Your task to perform on an android device: toggle data saver in the chrome app Image 0: 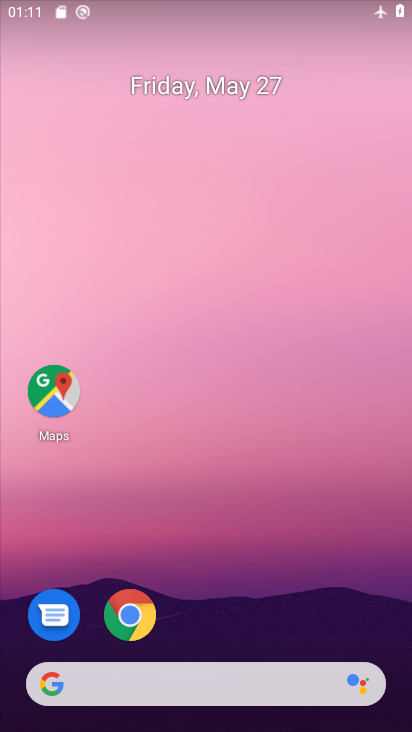
Step 0: drag from (354, 637) to (378, 252)
Your task to perform on an android device: toggle data saver in the chrome app Image 1: 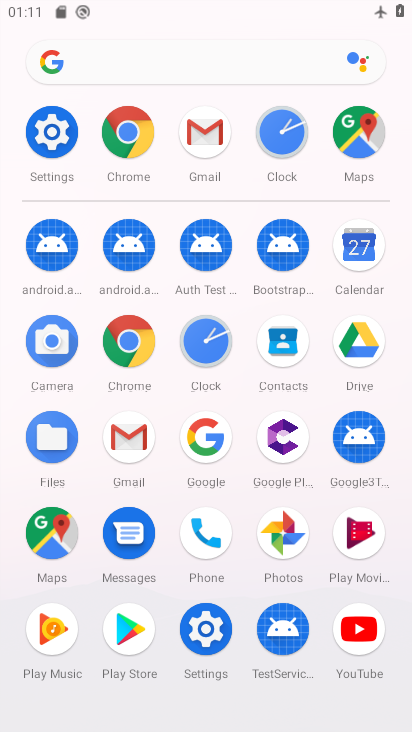
Step 1: click (142, 354)
Your task to perform on an android device: toggle data saver in the chrome app Image 2: 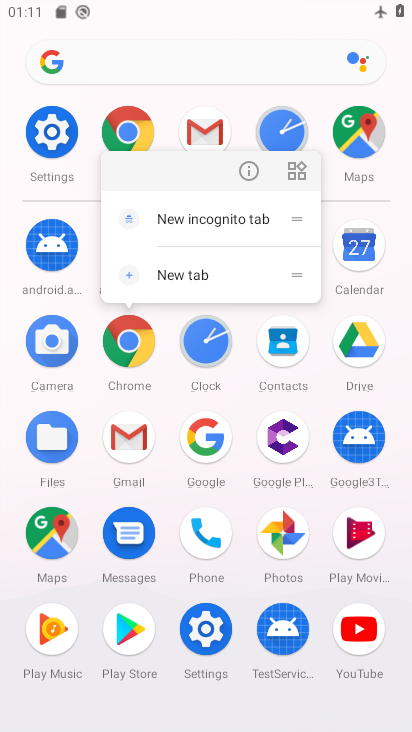
Step 2: click (145, 354)
Your task to perform on an android device: toggle data saver in the chrome app Image 3: 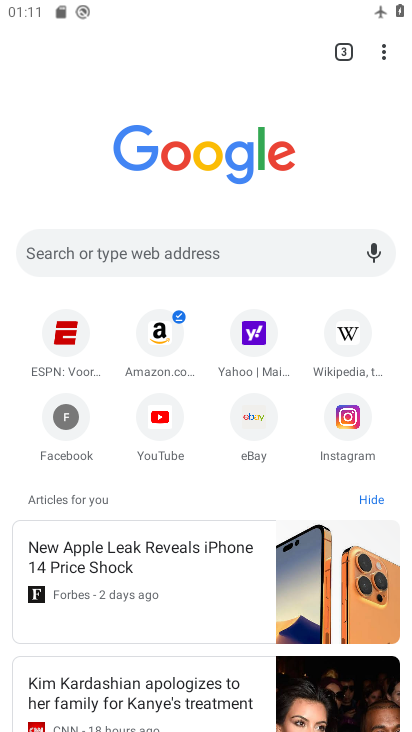
Step 3: click (388, 52)
Your task to perform on an android device: toggle data saver in the chrome app Image 4: 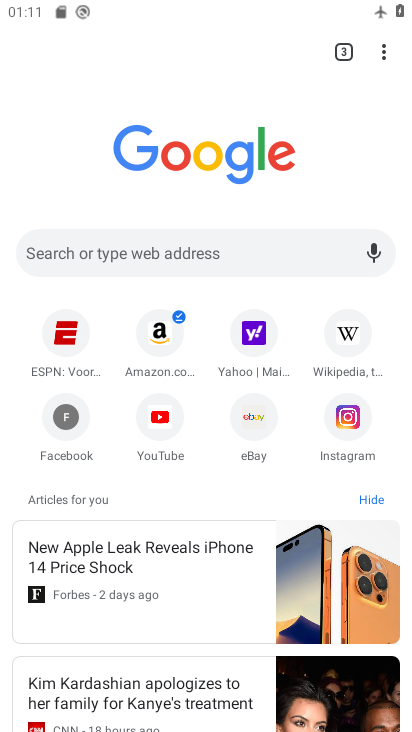
Step 4: click (387, 50)
Your task to perform on an android device: toggle data saver in the chrome app Image 5: 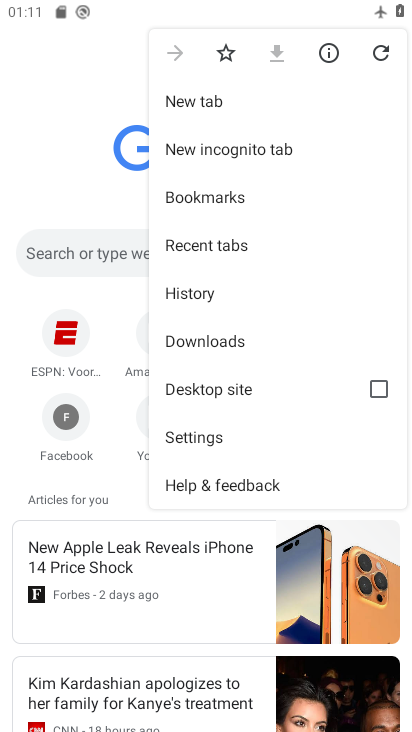
Step 5: click (267, 442)
Your task to perform on an android device: toggle data saver in the chrome app Image 6: 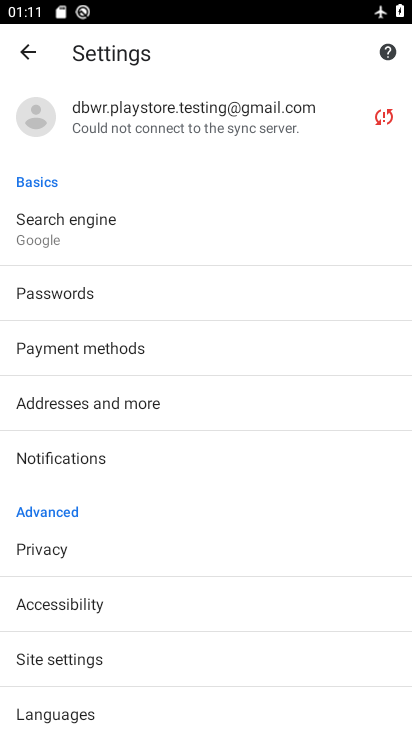
Step 6: drag from (287, 530) to (288, 462)
Your task to perform on an android device: toggle data saver in the chrome app Image 7: 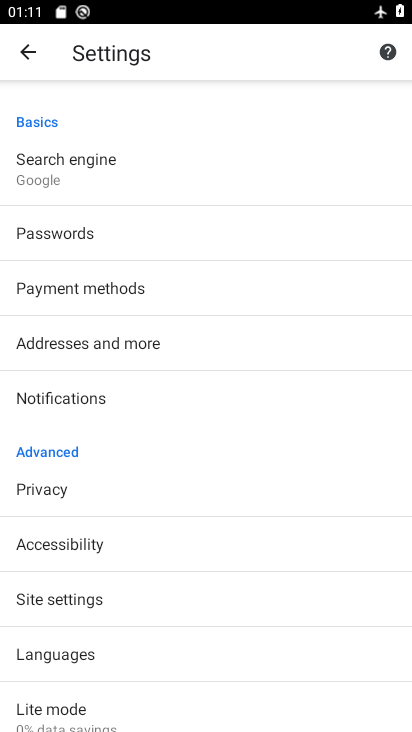
Step 7: drag from (293, 527) to (294, 468)
Your task to perform on an android device: toggle data saver in the chrome app Image 8: 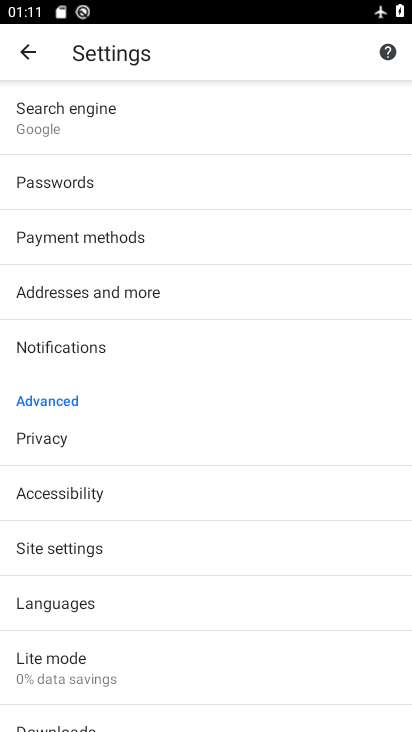
Step 8: drag from (294, 523) to (295, 463)
Your task to perform on an android device: toggle data saver in the chrome app Image 9: 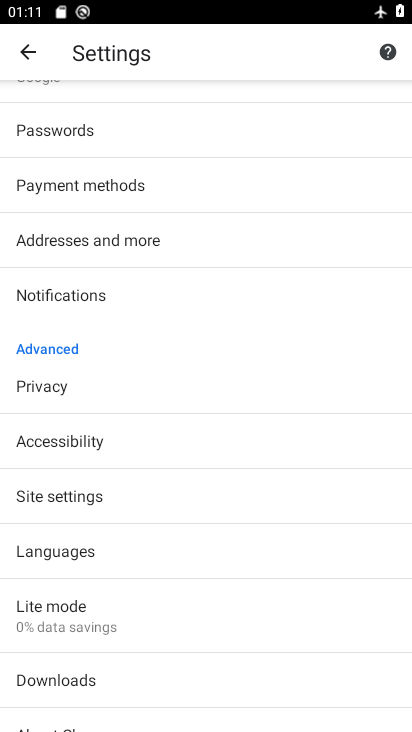
Step 9: drag from (312, 371) to (308, 460)
Your task to perform on an android device: toggle data saver in the chrome app Image 10: 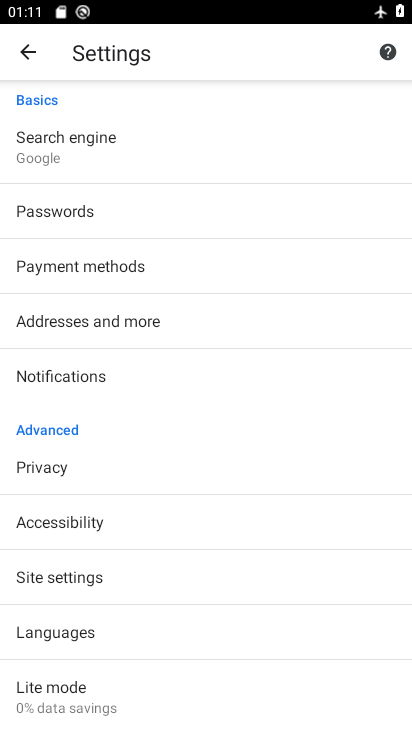
Step 10: drag from (319, 363) to (319, 434)
Your task to perform on an android device: toggle data saver in the chrome app Image 11: 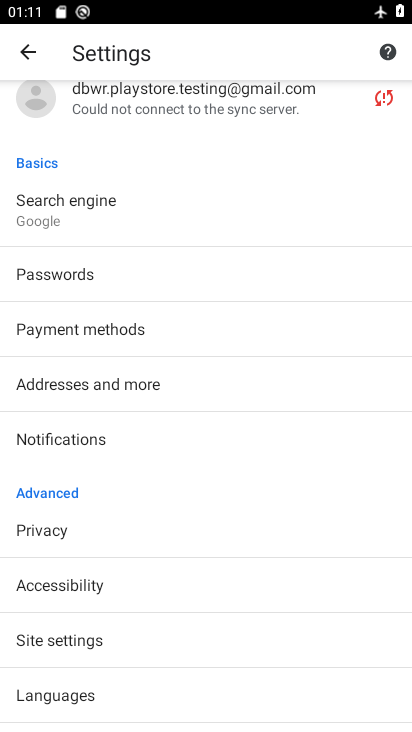
Step 11: drag from (250, 664) to (260, 515)
Your task to perform on an android device: toggle data saver in the chrome app Image 12: 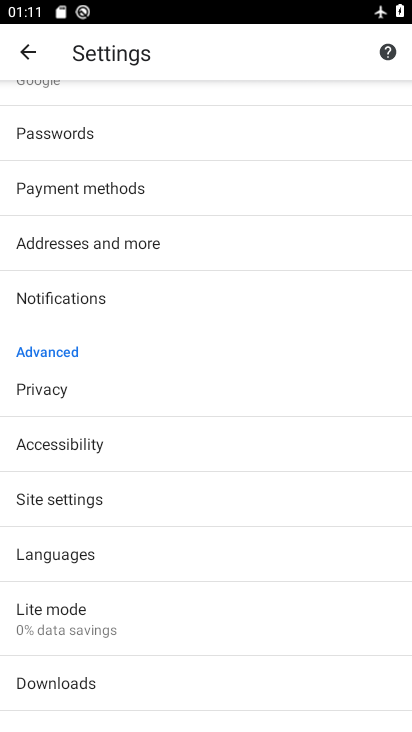
Step 12: click (241, 631)
Your task to perform on an android device: toggle data saver in the chrome app Image 13: 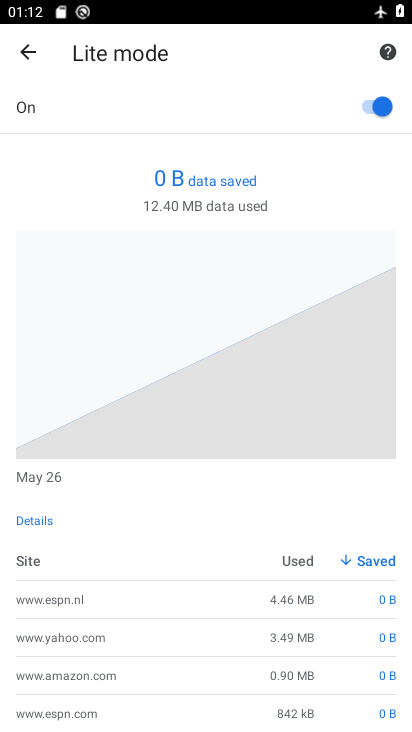
Step 13: click (377, 109)
Your task to perform on an android device: toggle data saver in the chrome app Image 14: 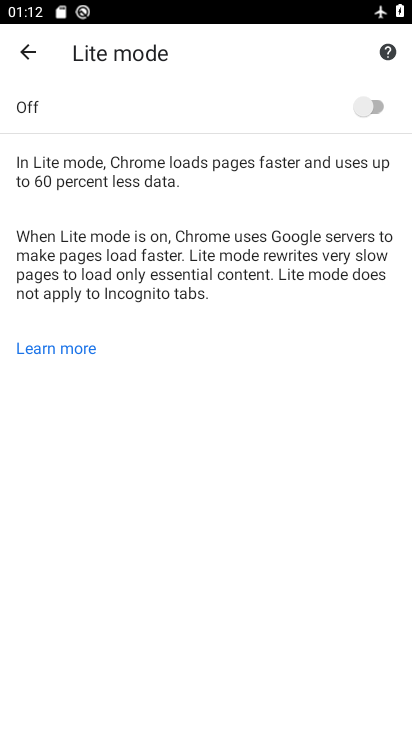
Step 14: task complete